Your task to perform on an android device: turn on notifications settings in the gmail app Image 0: 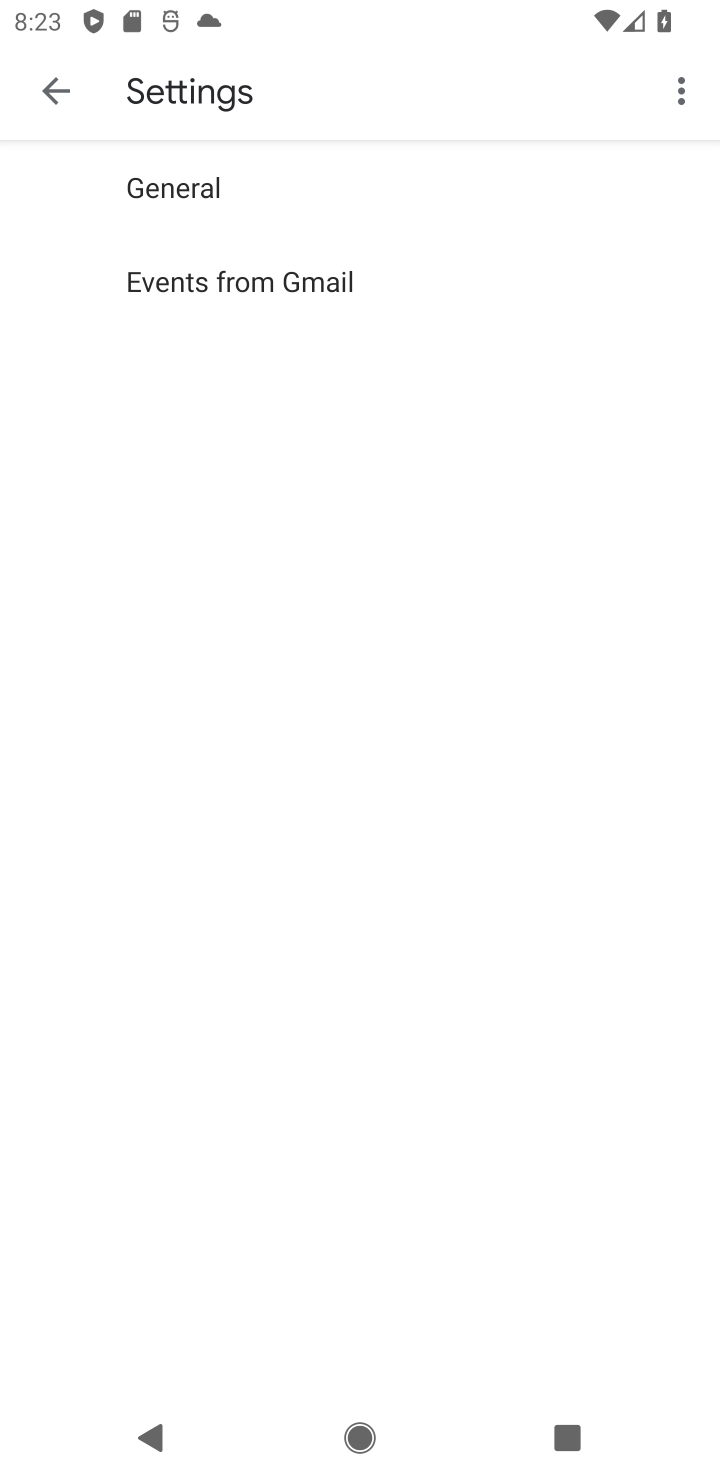
Step 0: press home button
Your task to perform on an android device: turn on notifications settings in the gmail app Image 1: 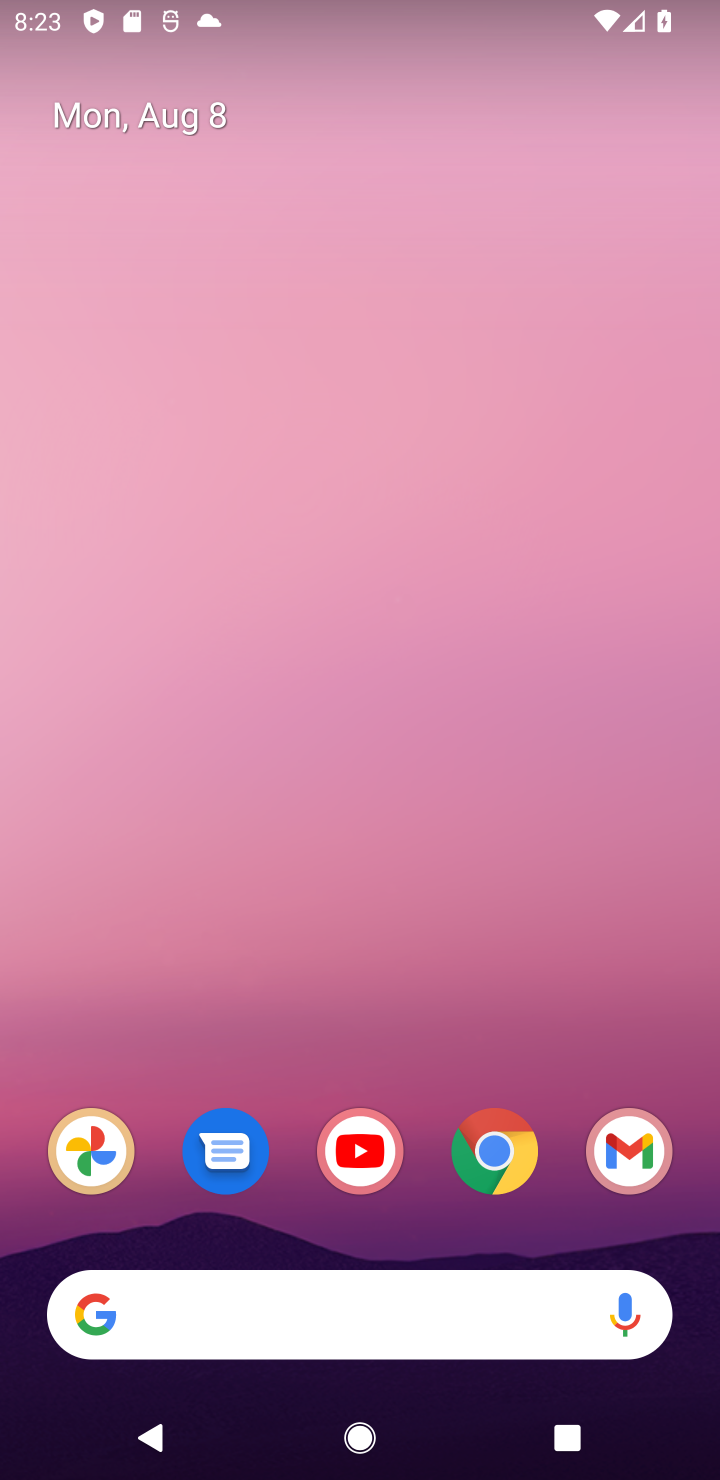
Step 1: drag from (460, 1081) to (427, 943)
Your task to perform on an android device: turn on notifications settings in the gmail app Image 2: 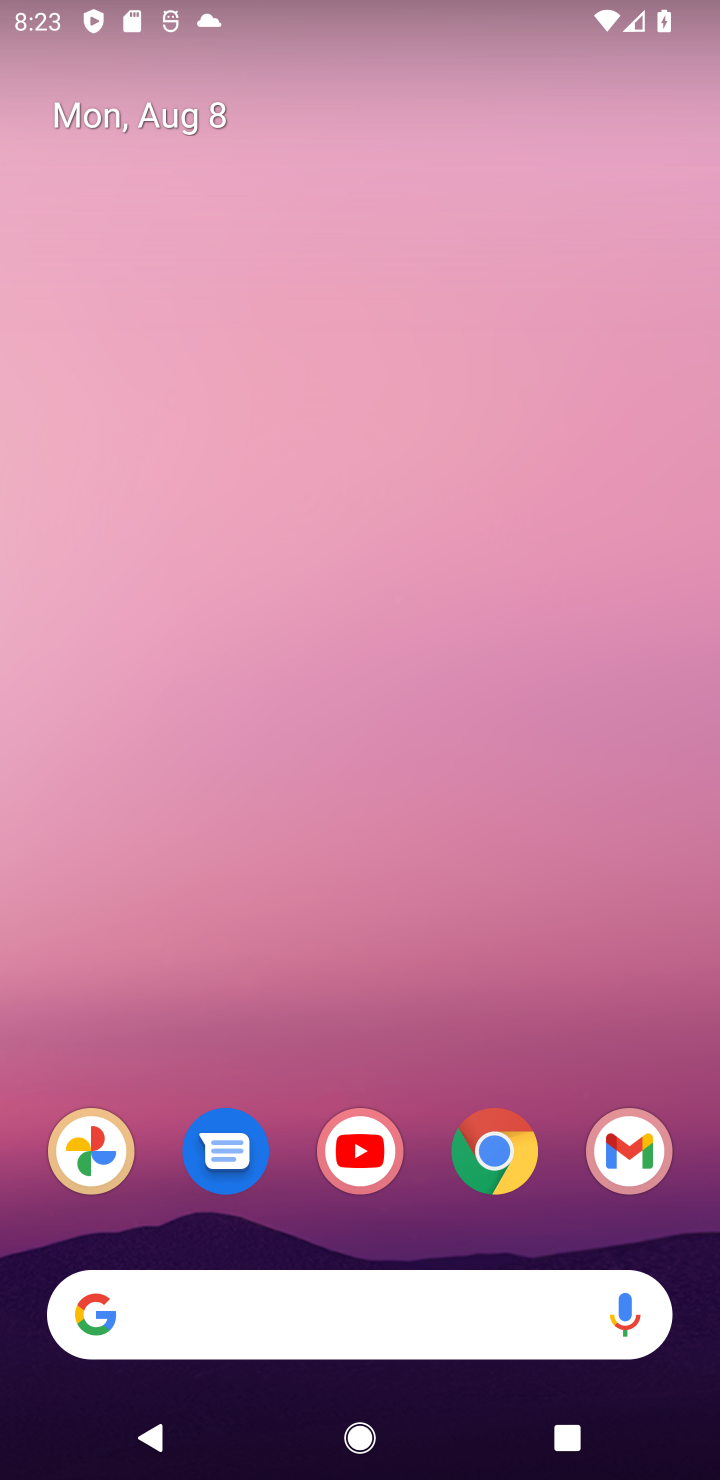
Step 2: click (645, 1141)
Your task to perform on an android device: turn on notifications settings in the gmail app Image 3: 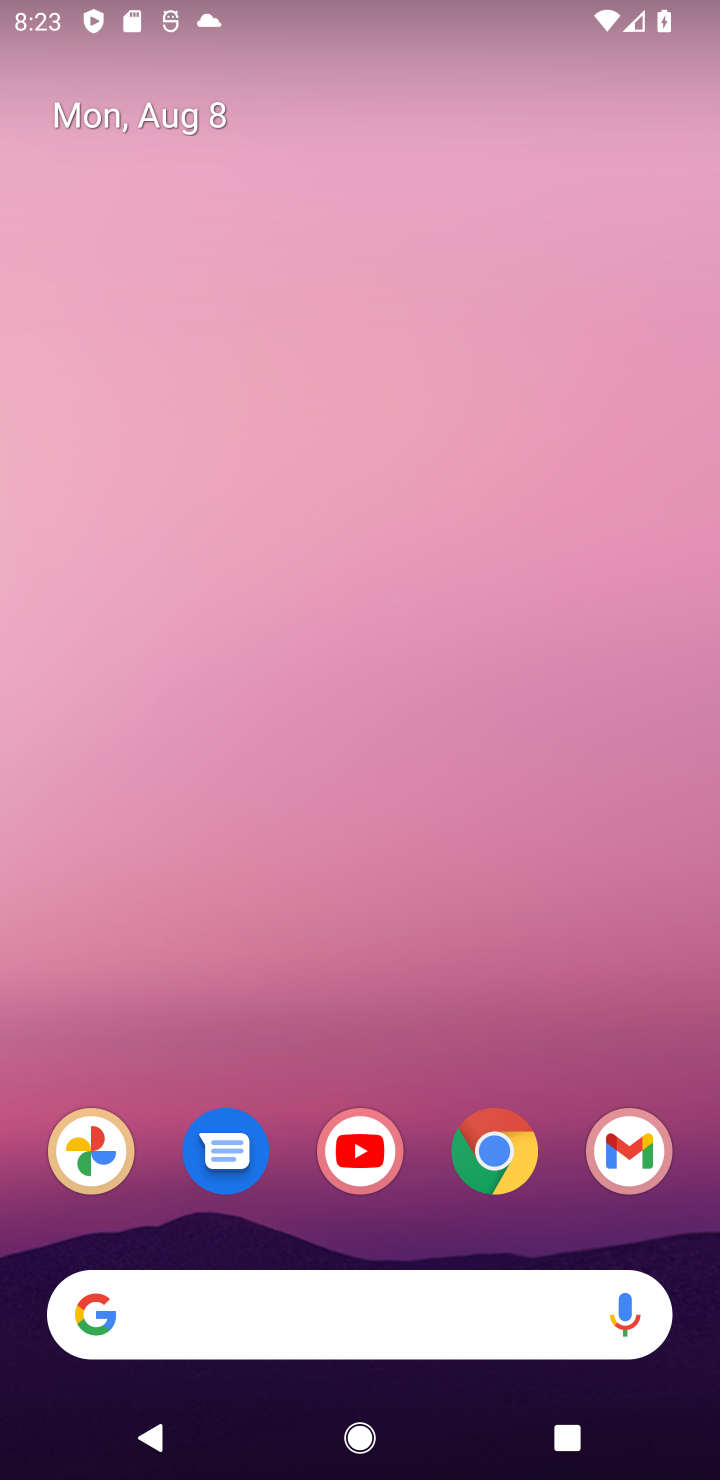
Step 3: click (620, 1146)
Your task to perform on an android device: turn on notifications settings in the gmail app Image 4: 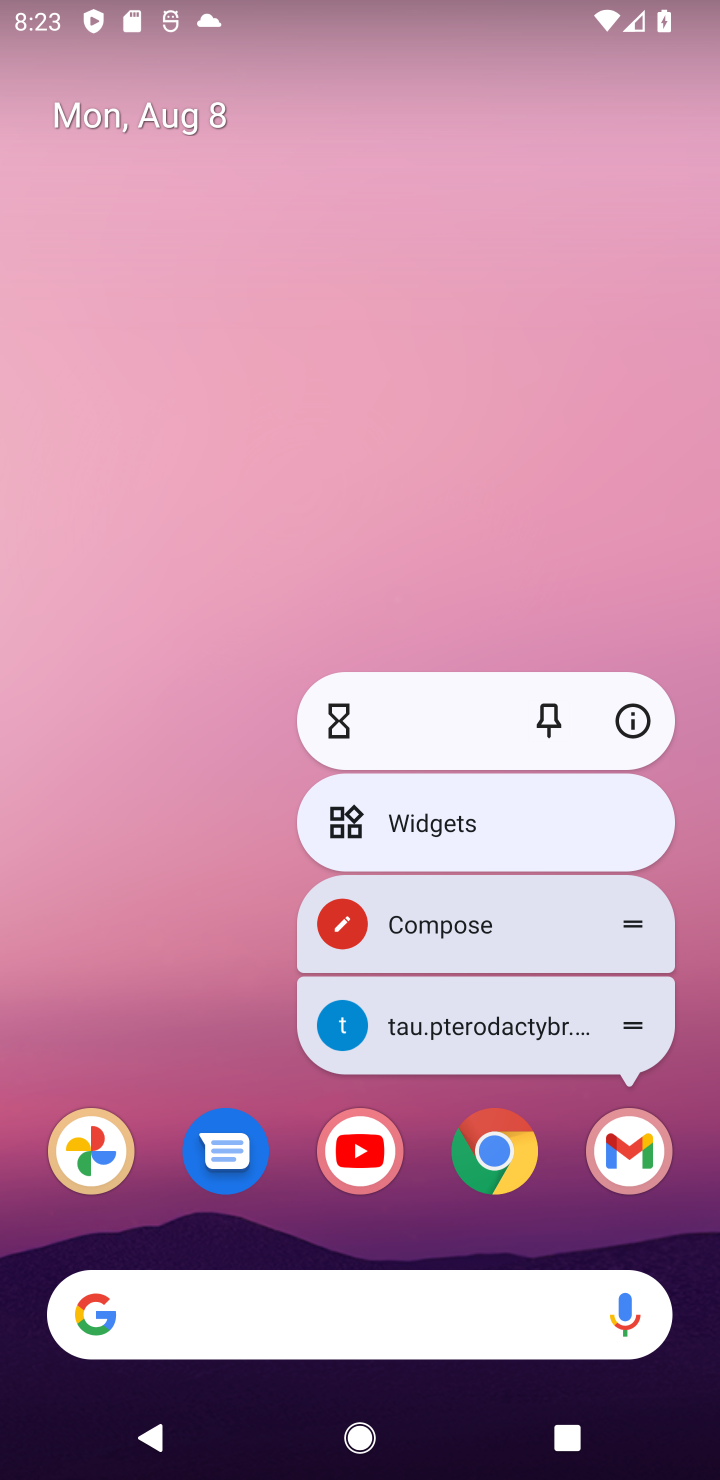
Step 4: click (638, 715)
Your task to perform on an android device: turn on notifications settings in the gmail app Image 5: 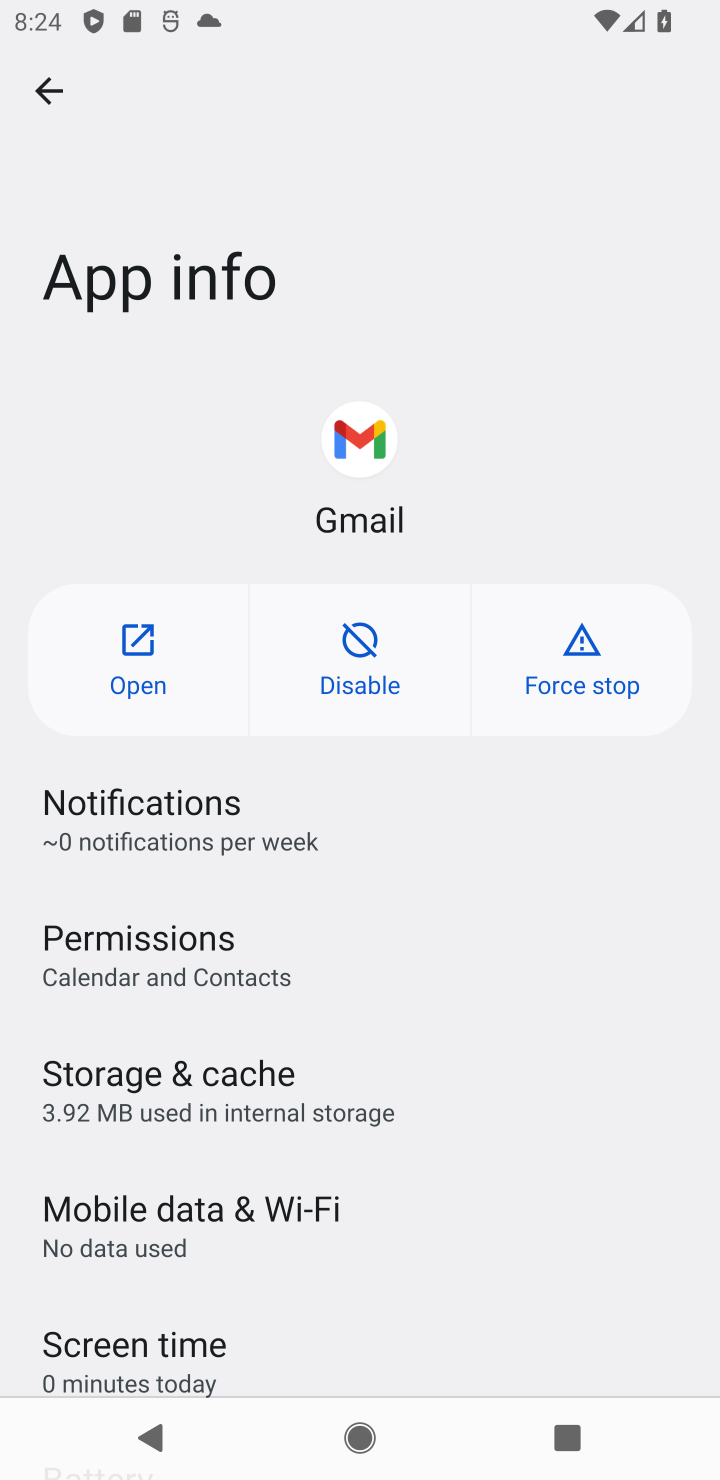
Step 5: click (202, 812)
Your task to perform on an android device: turn on notifications settings in the gmail app Image 6: 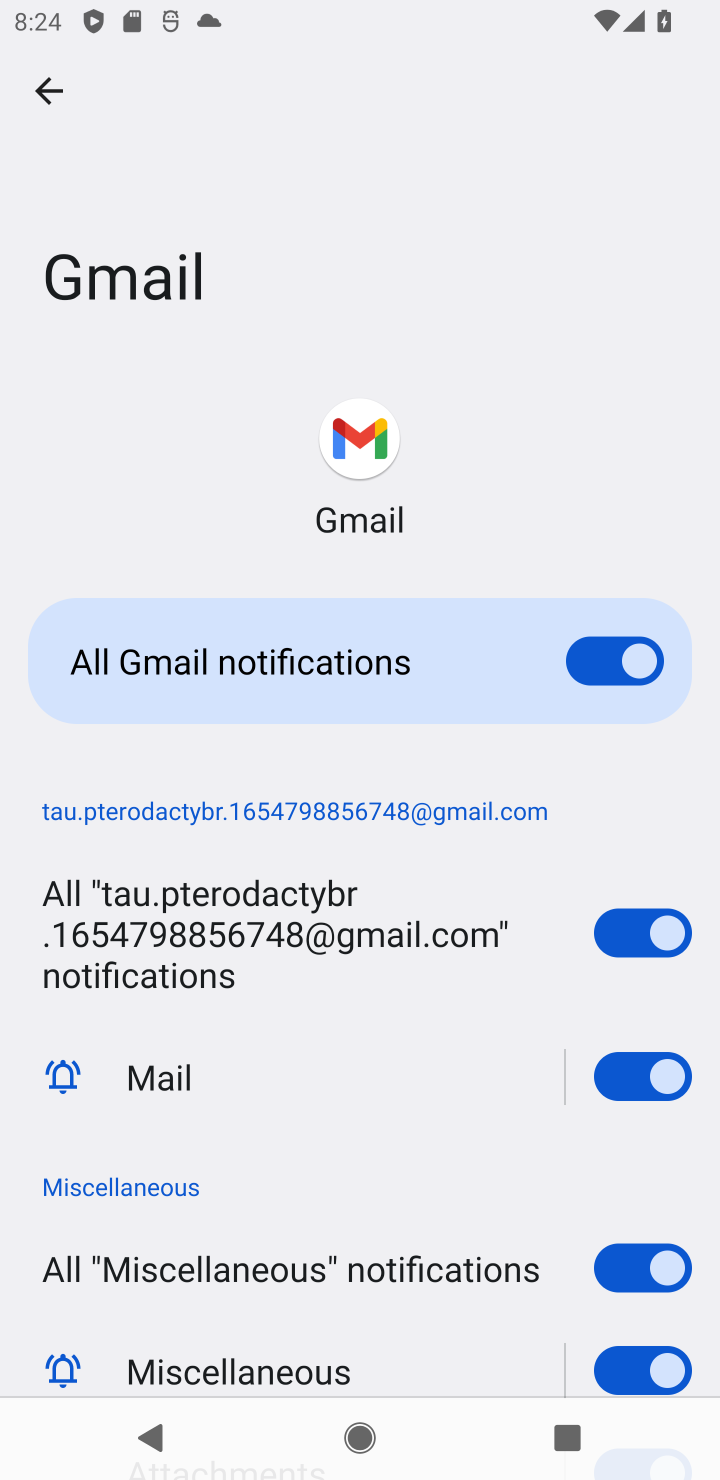
Step 6: task complete